Your task to perform on an android device: turn off data saver in the chrome app Image 0: 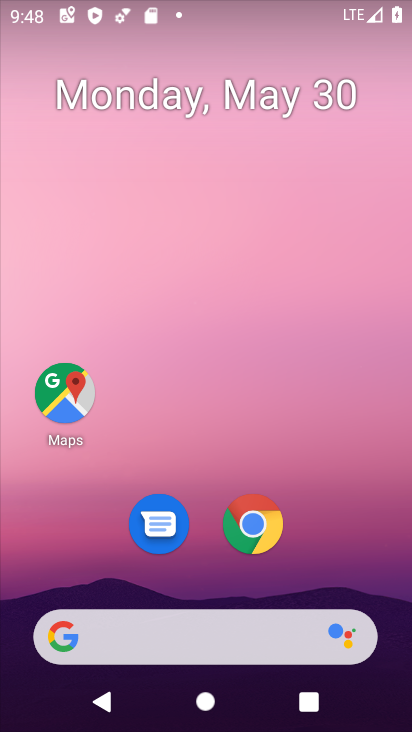
Step 0: click (259, 528)
Your task to perform on an android device: turn off data saver in the chrome app Image 1: 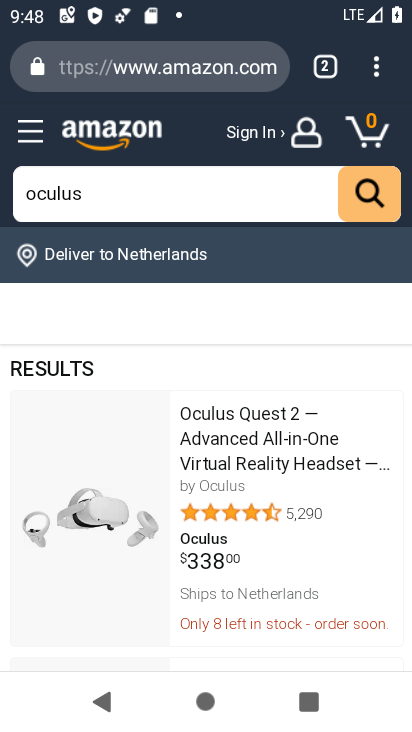
Step 1: click (373, 66)
Your task to perform on an android device: turn off data saver in the chrome app Image 2: 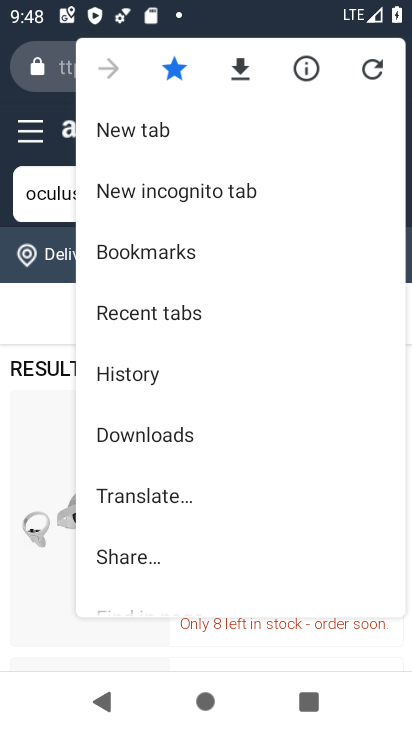
Step 2: drag from (244, 485) to (221, 144)
Your task to perform on an android device: turn off data saver in the chrome app Image 3: 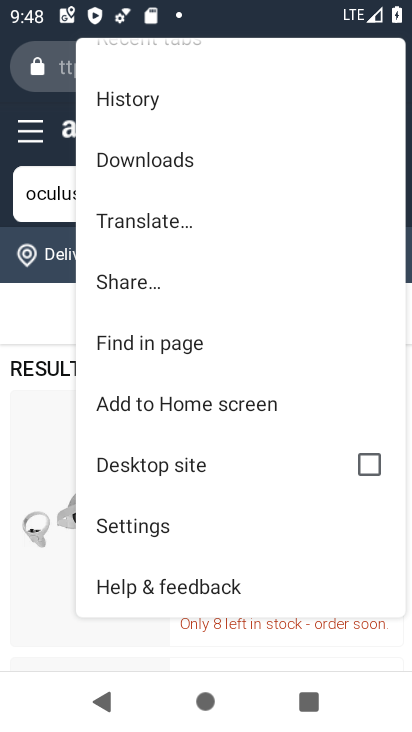
Step 3: click (189, 527)
Your task to perform on an android device: turn off data saver in the chrome app Image 4: 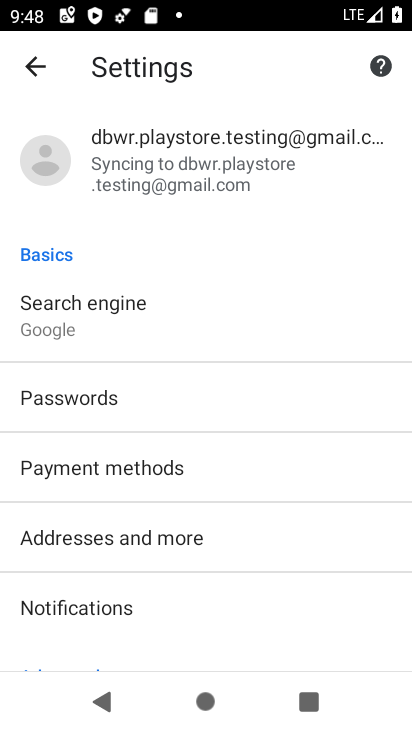
Step 4: drag from (270, 537) to (225, 185)
Your task to perform on an android device: turn off data saver in the chrome app Image 5: 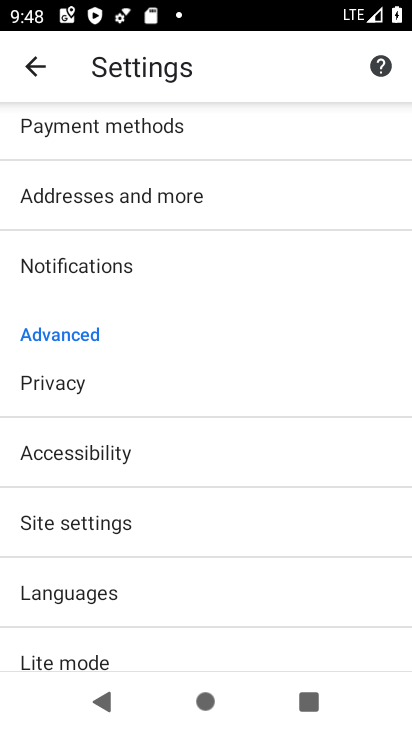
Step 5: drag from (168, 580) to (167, 419)
Your task to perform on an android device: turn off data saver in the chrome app Image 6: 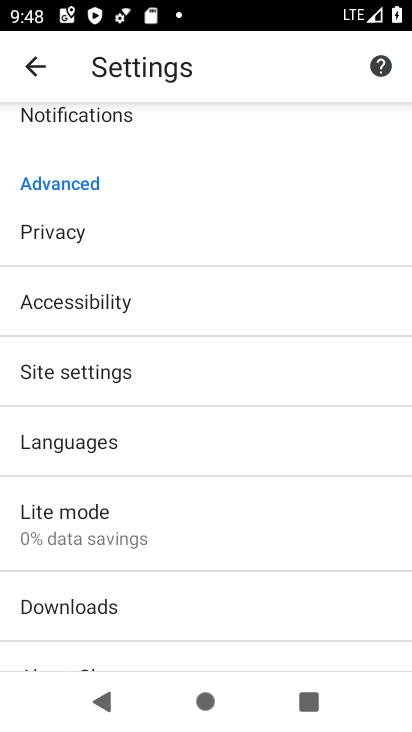
Step 6: click (175, 519)
Your task to perform on an android device: turn off data saver in the chrome app Image 7: 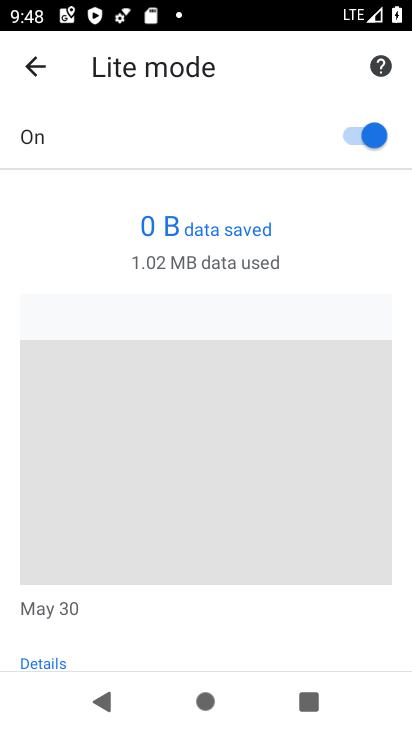
Step 7: click (354, 130)
Your task to perform on an android device: turn off data saver in the chrome app Image 8: 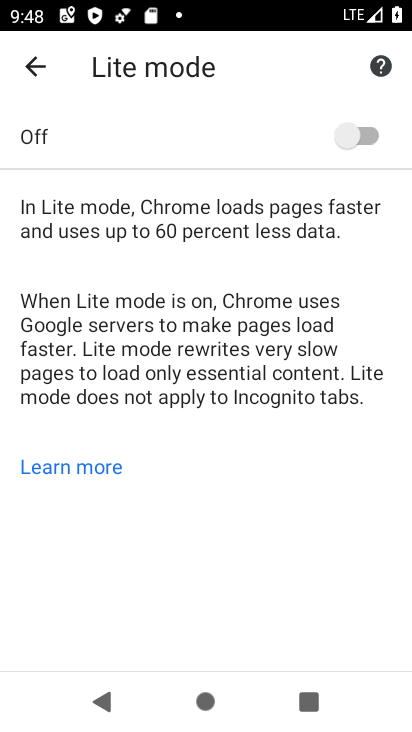
Step 8: task complete